Your task to perform on an android device: empty trash in google photos Image 0: 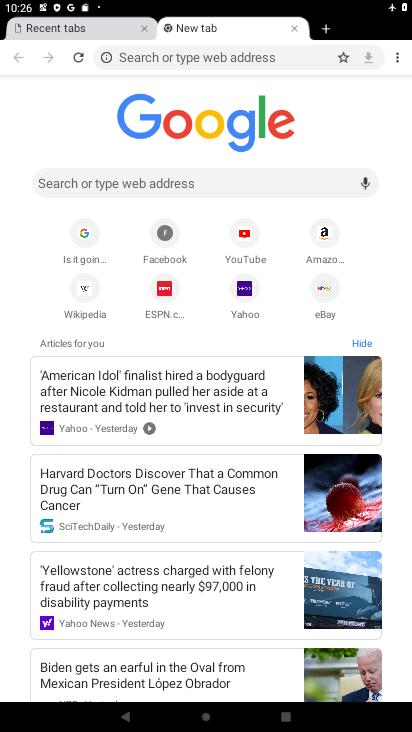
Step 0: press home button
Your task to perform on an android device: empty trash in google photos Image 1: 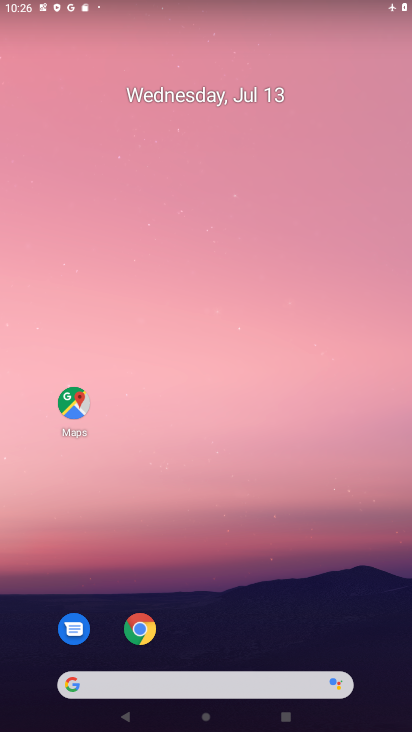
Step 1: drag from (295, 665) to (306, 283)
Your task to perform on an android device: empty trash in google photos Image 2: 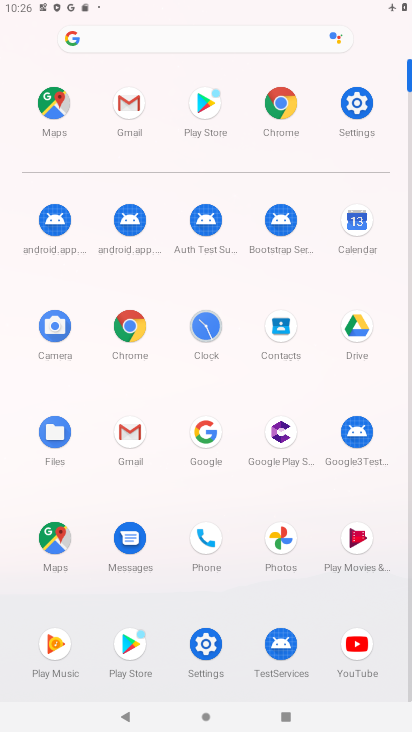
Step 2: click (271, 528)
Your task to perform on an android device: empty trash in google photos Image 3: 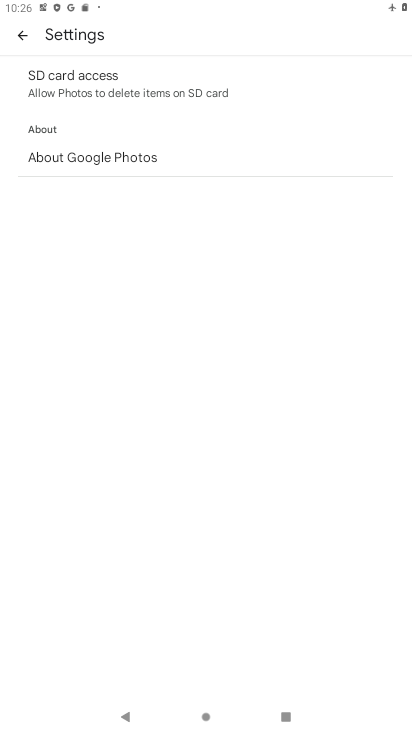
Step 3: click (11, 37)
Your task to perform on an android device: empty trash in google photos Image 4: 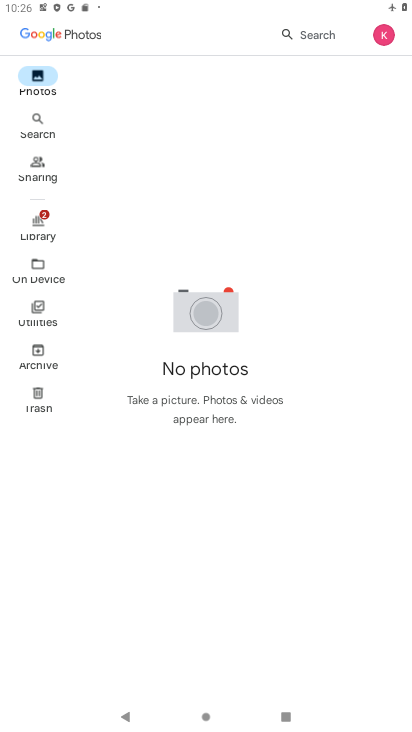
Step 4: click (51, 396)
Your task to perform on an android device: empty trash in google photos Image 5: 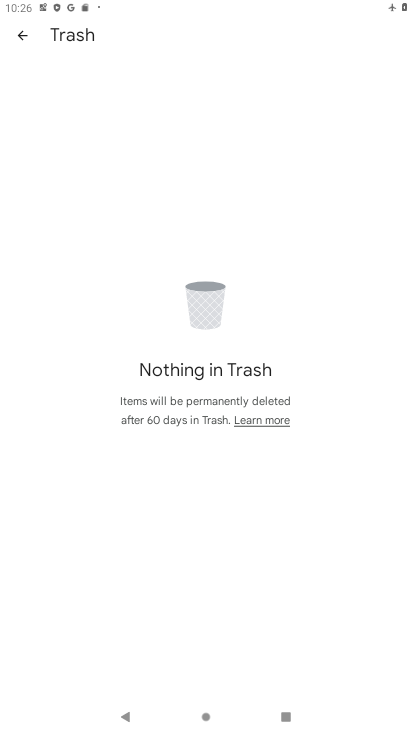
Step 5: task complete